Your task to perform on an android device: Check the news Image 0: 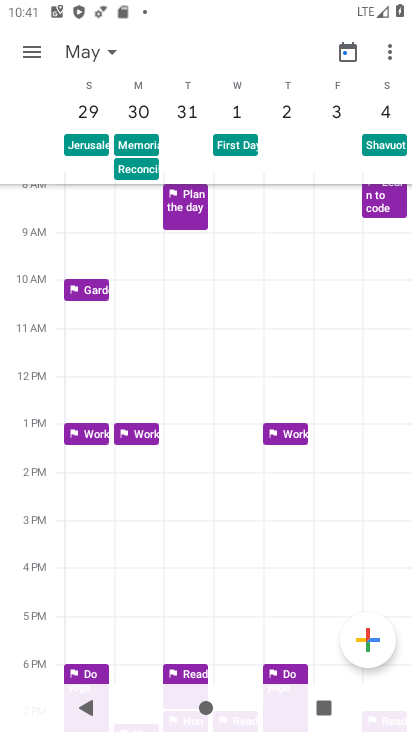
Step 0: press back button
Your task to perform on an android device: Check the news Image 1: 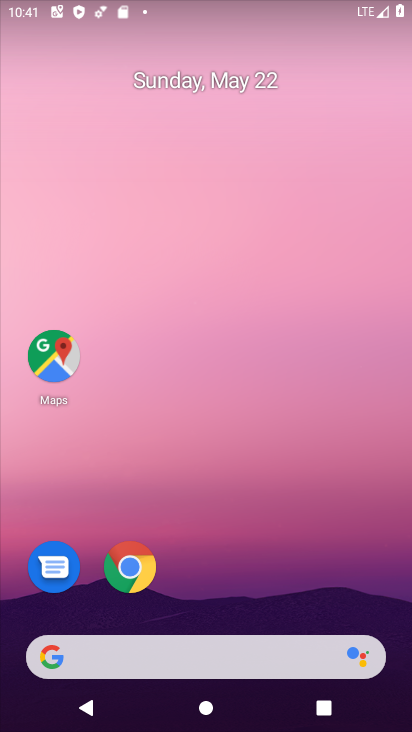
Step 1: drag from (244, 561) to (214, 30)
Your task to perform on an android device: Check the news Image 2: 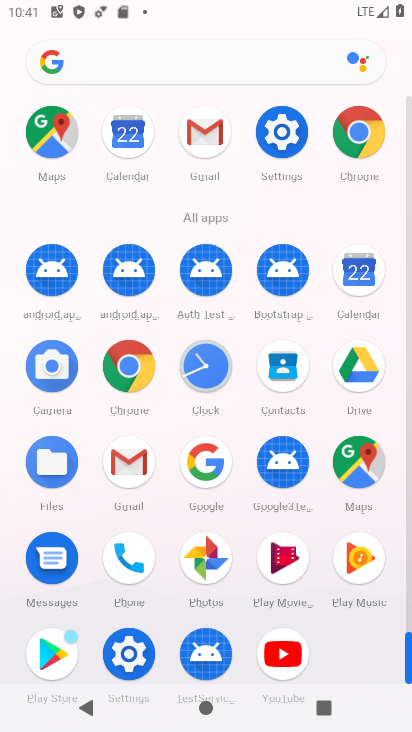
Step 2: click (127, 359)
Your task to perform on an android device: Check the news Image 3: 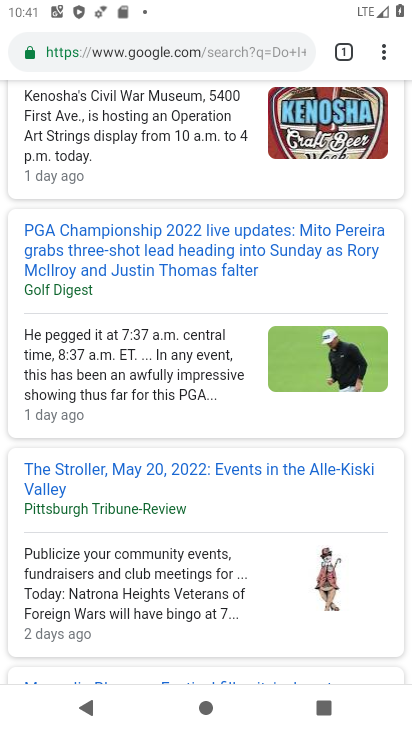
Step 3: click (193, 242)
Your task to perform on an android device: Check the news Image 4: 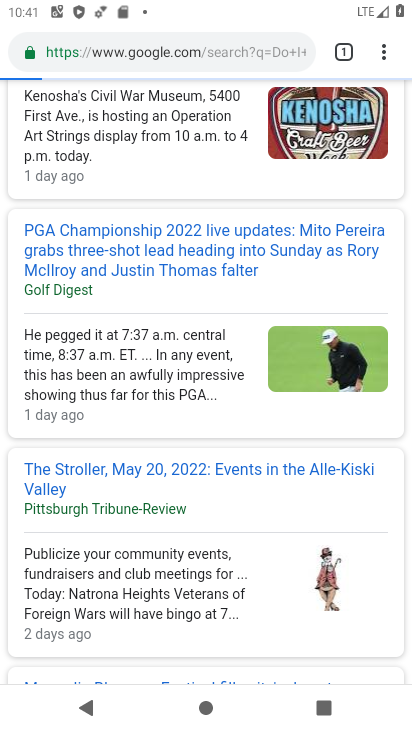
Step 4: click (214, 48)
Your task to perform on an android device: Check the news Image 5: 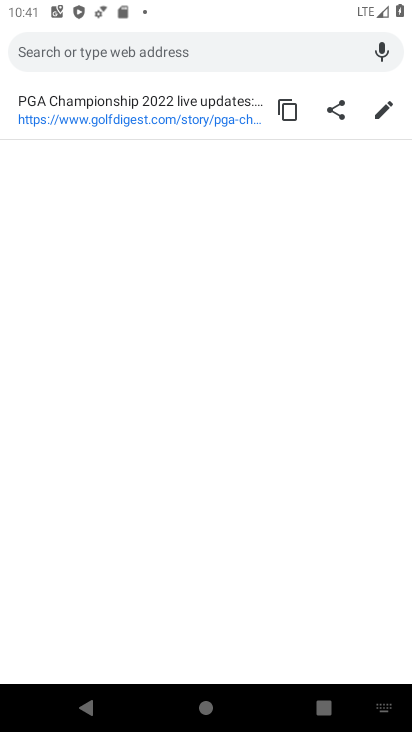
Step 5: type "Check the news"
Your task to perform on an android device: Check the news Image 6: 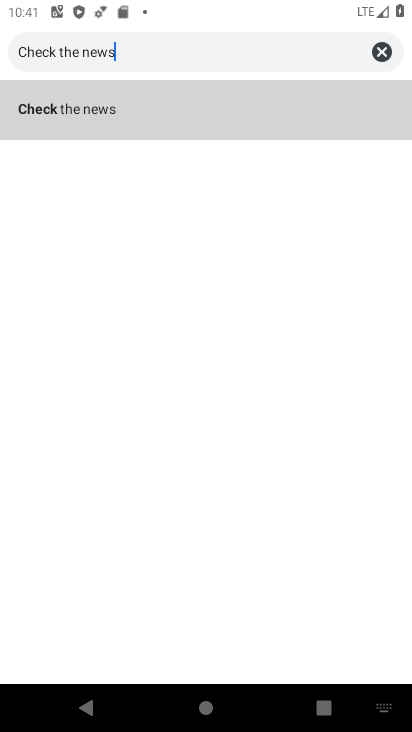
Step 6: type ""
Your task to perform on an android device: Check the news Image 7: 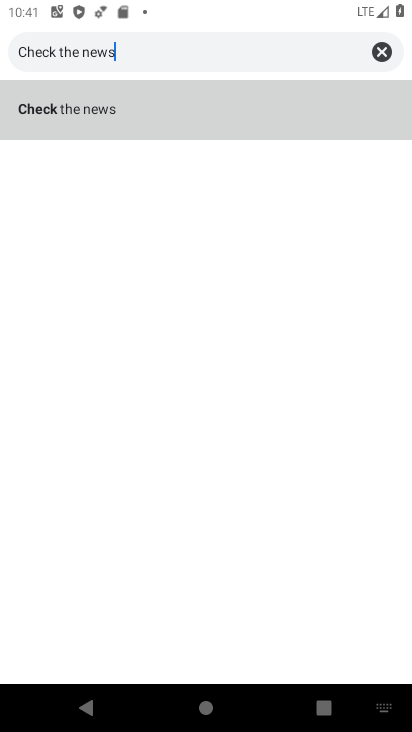
Step 7: click (95, 114)
Your task to perform on an android device: Check the news Image 8: 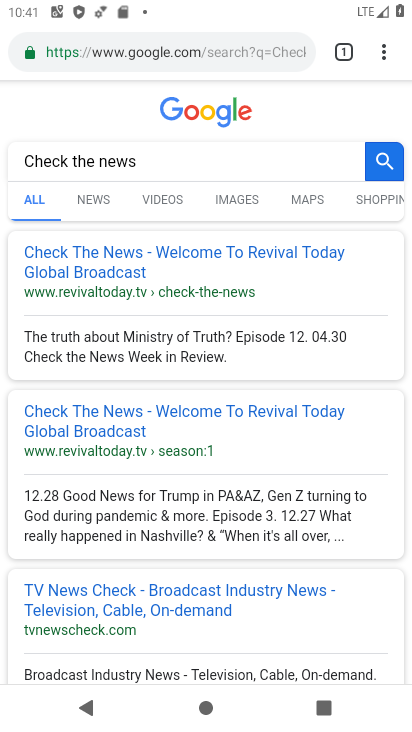
Step 8: click (93, 199)
Your task to perform on an android device: Check the news Image 9: 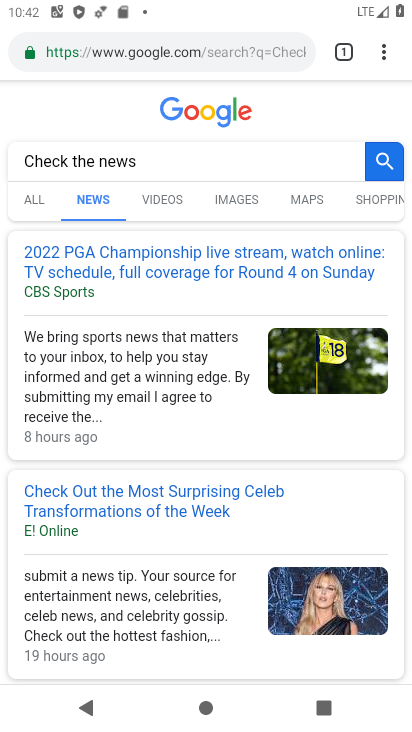
Step 9: task complete